Your task to perform on an android device: Open calendar and show me the second week of next month Image 0: 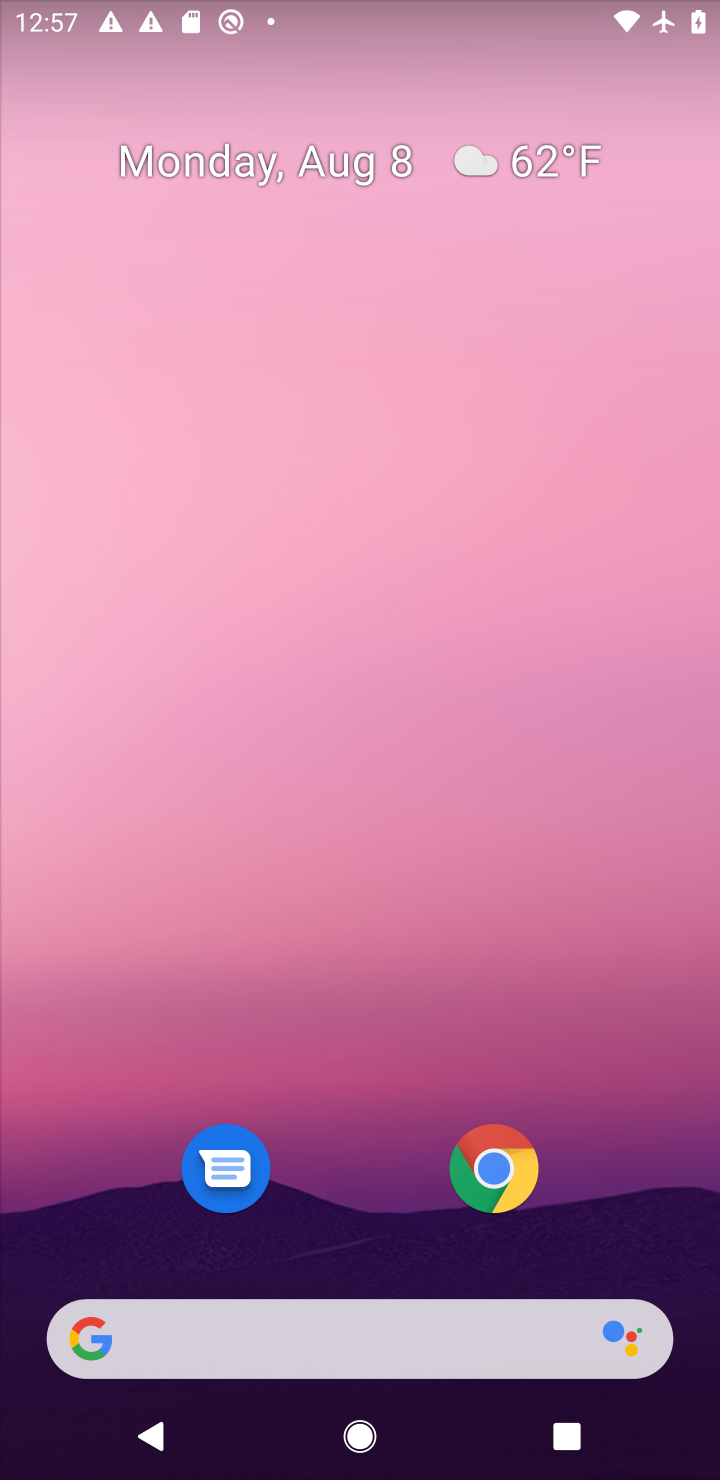
Step 0: drag from (423, 692) to (416, 43)
Your task to perform on an android device: Open calendar and show me the second week of next month Image 1: 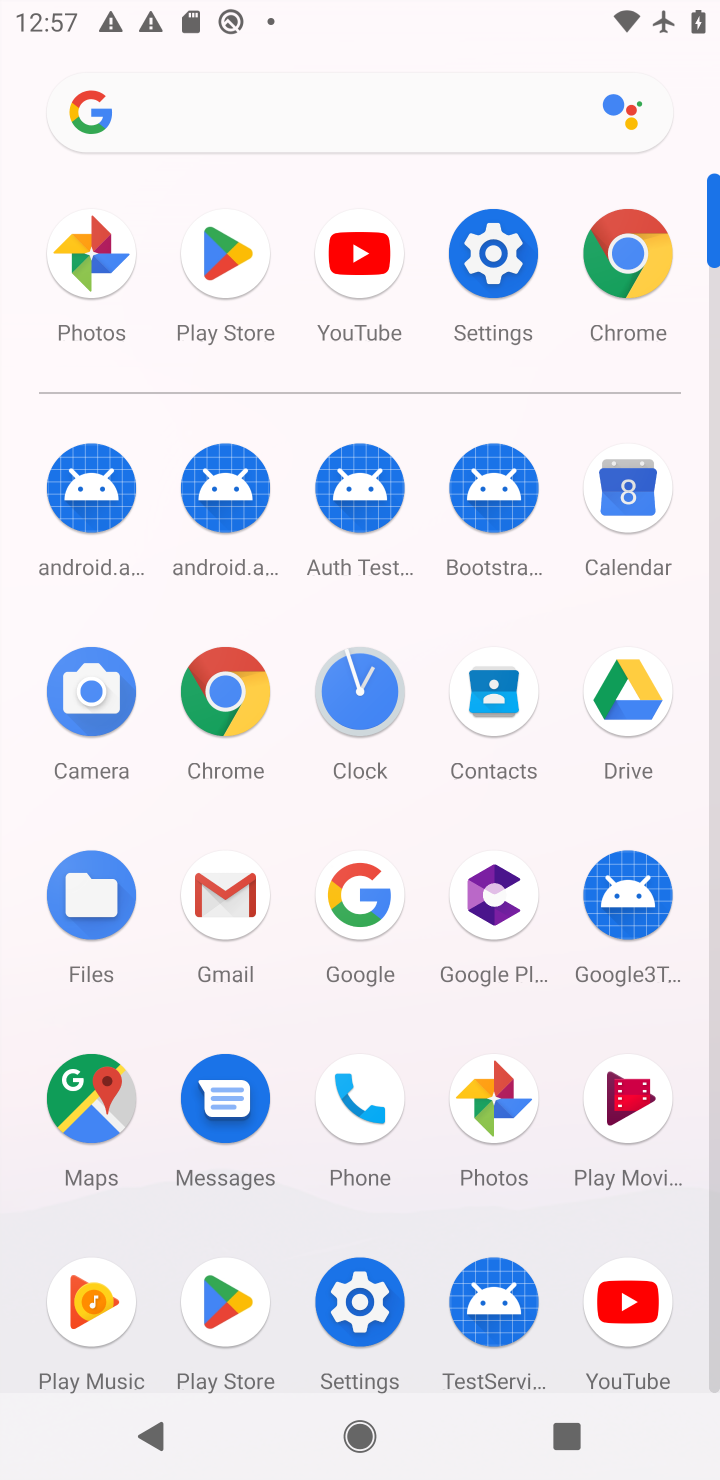
Step 1: click (606, 527)
Your task to perform on an android device: Open calendar and show me the second week of next month Image 2: 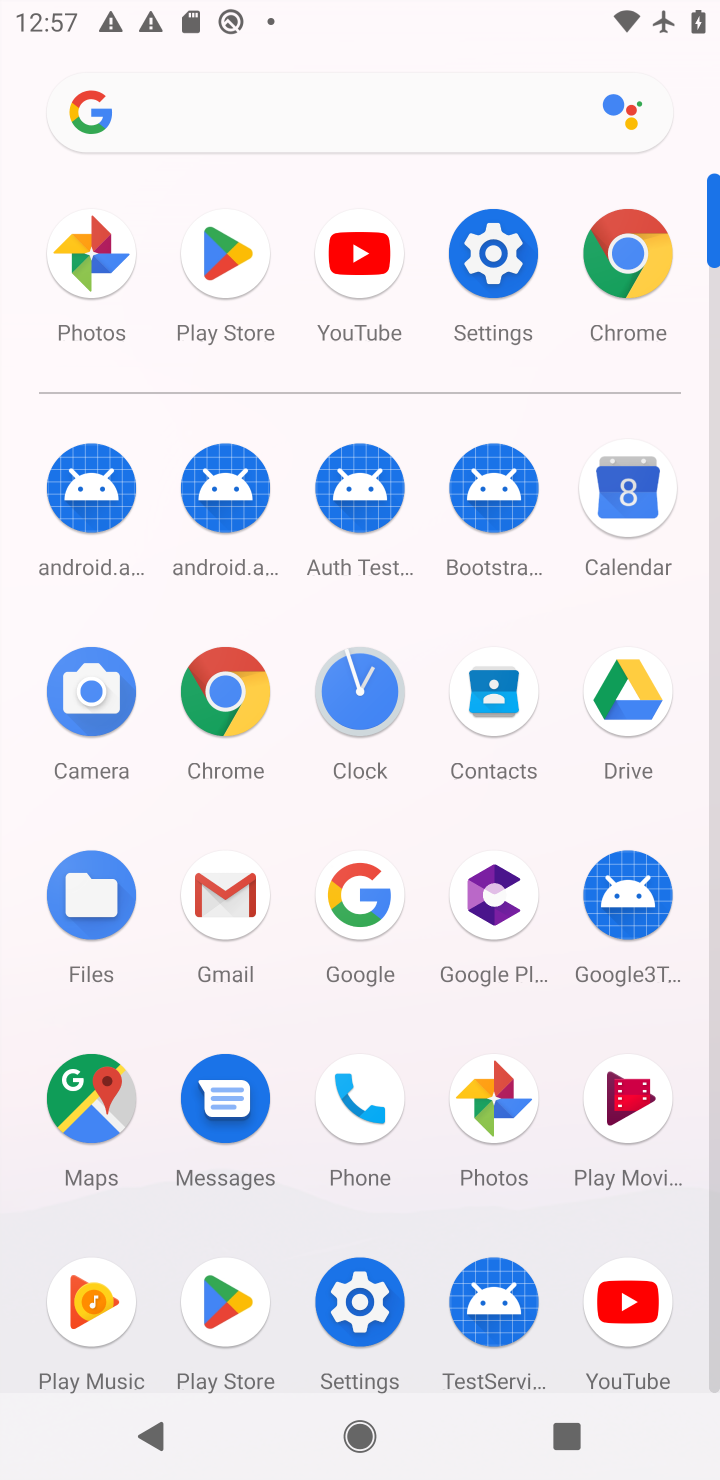
Step 2: task complete